Your task to perform on an android device: turn on the 24-hour format for clock Image 0: 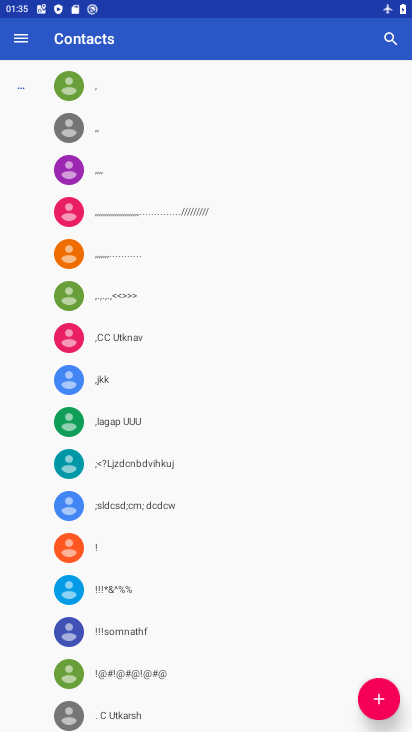
Step 0: press home button
Your task to perform on an android device: turn on the 24-hour format for clock Image 1: 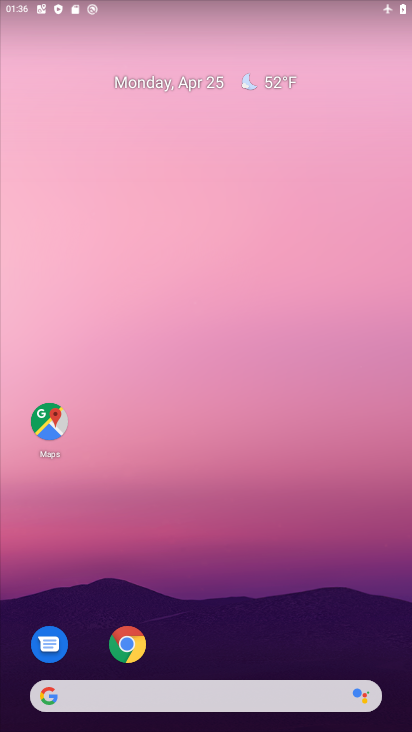
Step 1: click (282, 621)
Your task to perform on an android device: turn on the 24-hour format for clock Image 2: 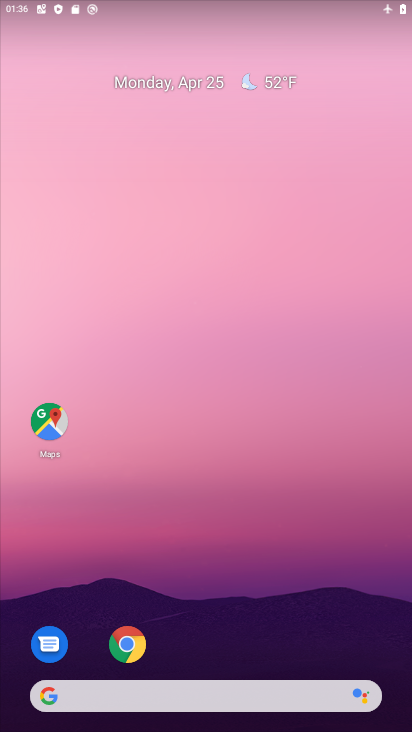
Step 2: drag from (282, 621) to (139, 8)
Your task to perform on an android device: turn on the 24-hour format for clock Image 3: 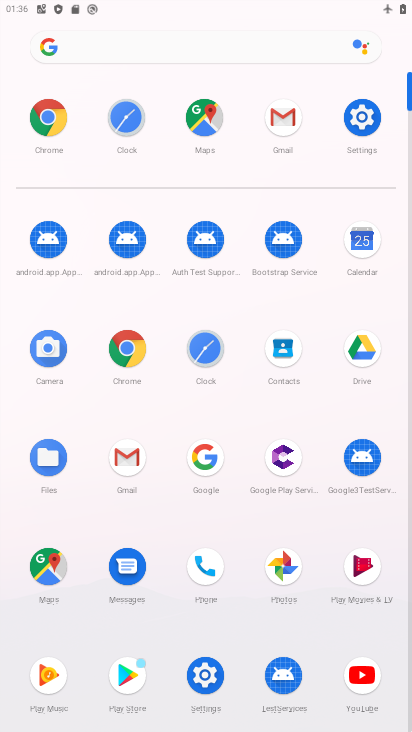
Step 3: click (349, 229)
Your task to perform on an android device: turn on the 24-hour format for clock Image 4: 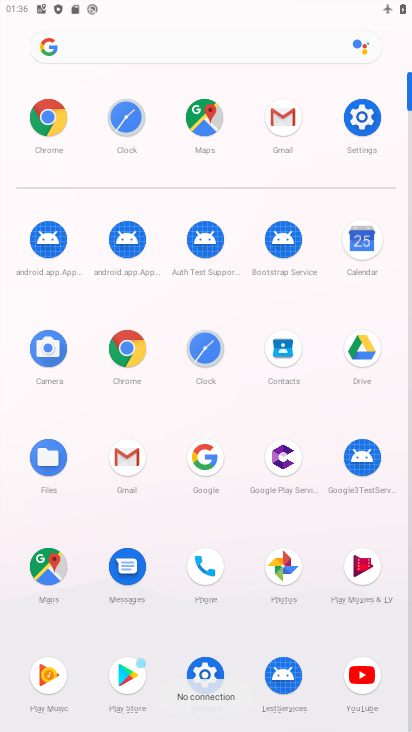
Step 4: click (218, 337)
Your task to perform on an android device: turn on the 24-hour format for clock Image 5: 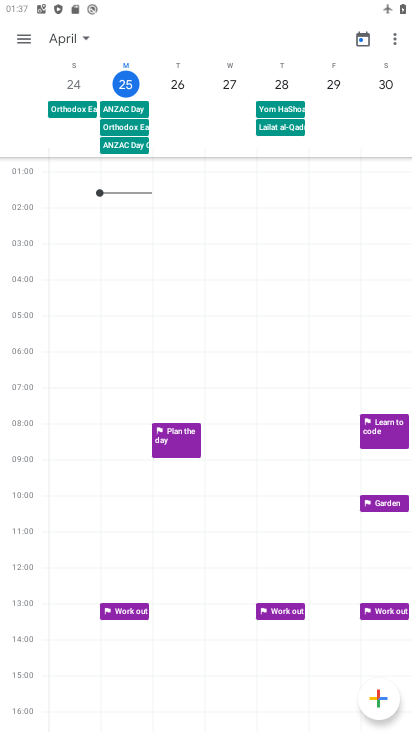
Step 5: click (388, 43)
Your task to perform on an android device: turn on the 24-hour format for clock Image 6: 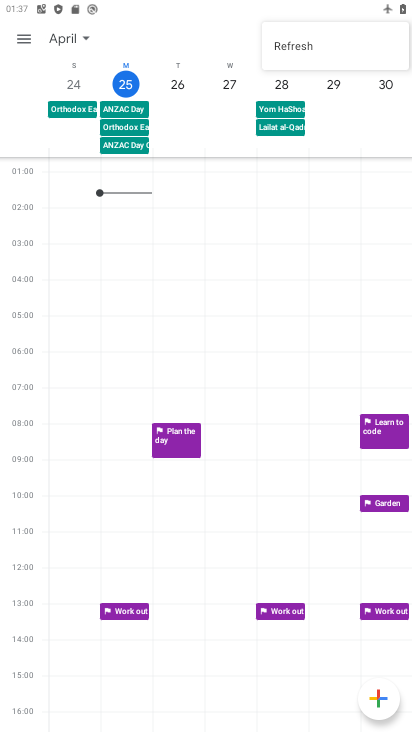
Step 6: click (388, 43)
Your task to perform on an android device: turn on the 24-hour format for clock Image 7: 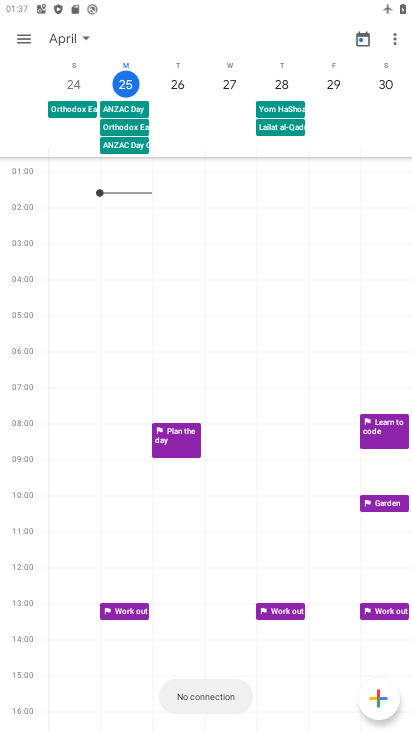
Step 7: task complete